Your task to perform on an android device: delete browsing data in the chrome app Image 0: 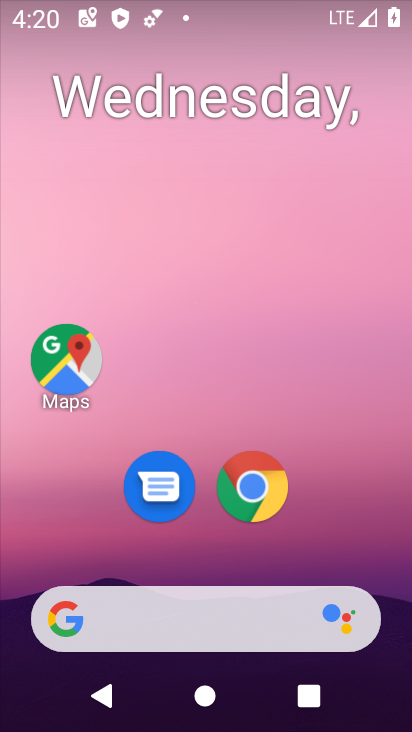
Step 0: drag from (206, 595) to (276, 294)
Your task to perform on an android device: delete browsing data in the chrome app Image 1: 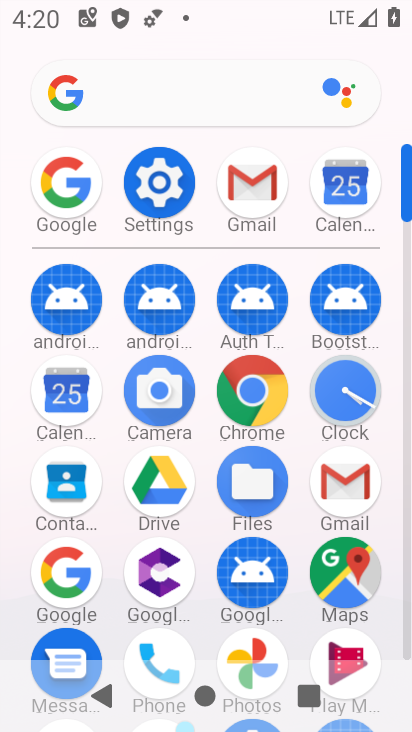
Step 1: click (239, 395)
Your task to perform on an android device: delete browsing data in the chrome app Image 2: 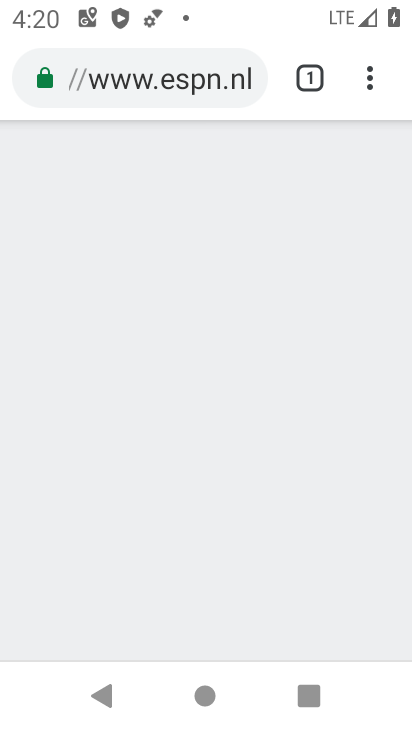
Step 2: click (307, 79)
Your task to perform on an android device: delete browsing data in the chrome app Image 3: 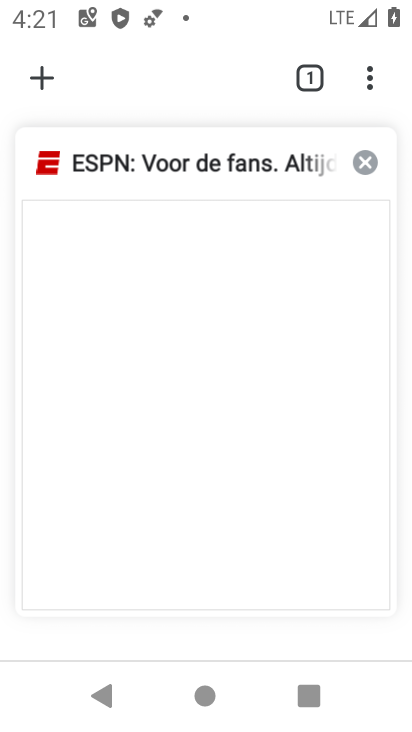
Step 3: click (358, 161)
Your task to perform on an android device: delete browsing data in the chrome app Image 4: 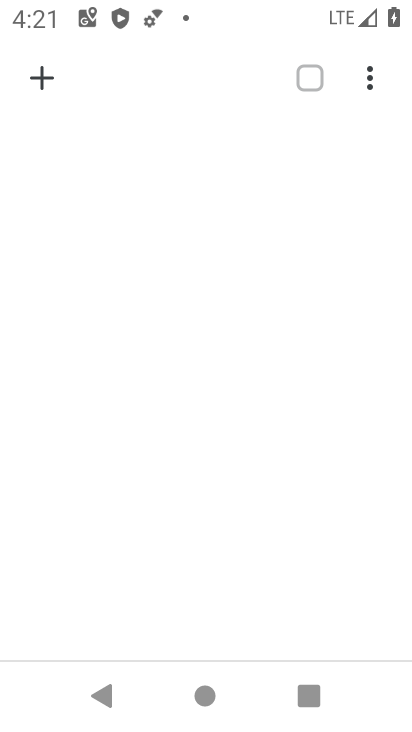
Step 4: click (33, 70)
Your task to perform on an android device: delete browsing data in the chrome app Image 5: 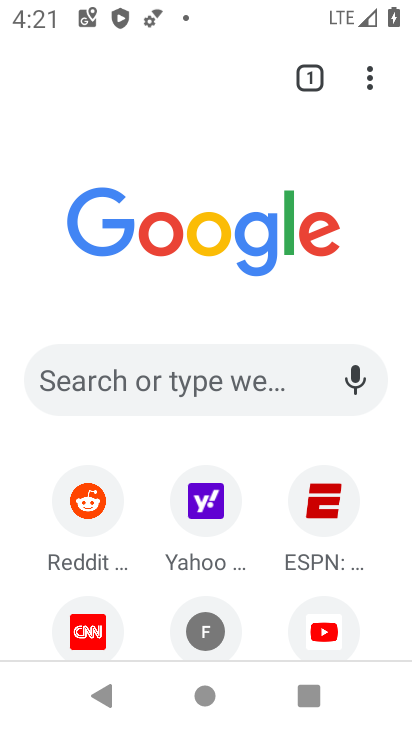
Step 5: drag from (153, 587) to (165, 287)
Your task to perform on an android device: delete browsing data in the chrome app Image 6: 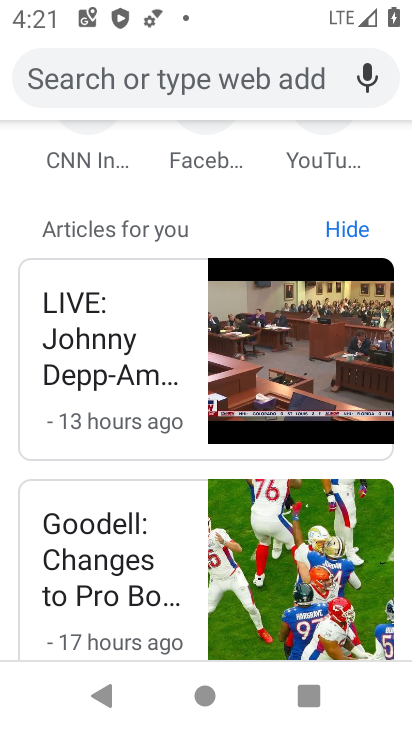
Step 6: drag from (240, 144) to (170, 557)
Your task to perform on an android device: delete browsing data in the chrome app Image 7: 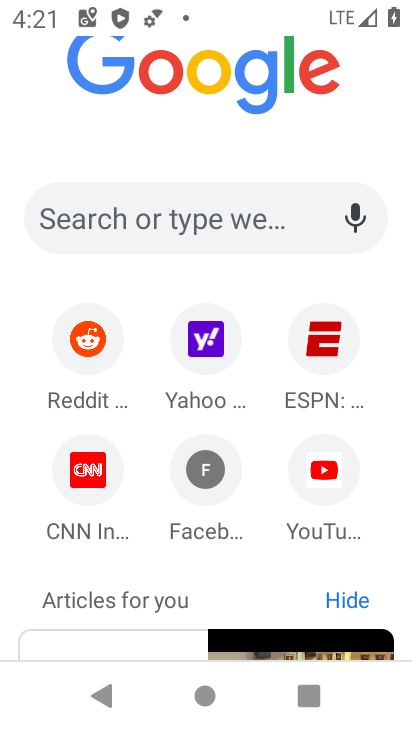
Step 7: drag from (342, 134) to (300, 453)
Your task to perform on an android device: delete browsing data in the chrome app Image 8: 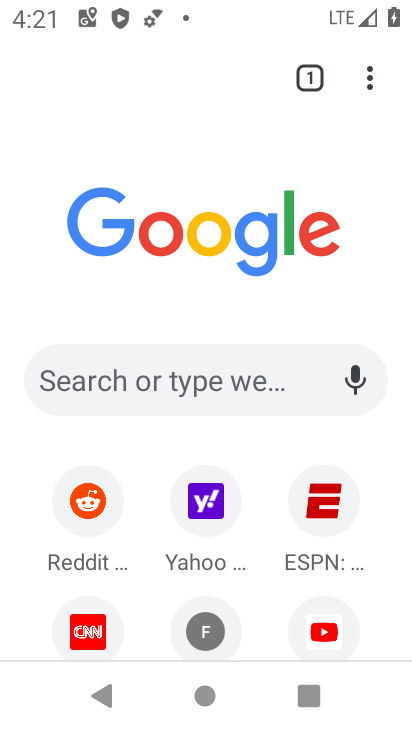
Step 8: click (366, 76)
Your task to perform on an android device: delete browsing data in the chrome app Image 9: 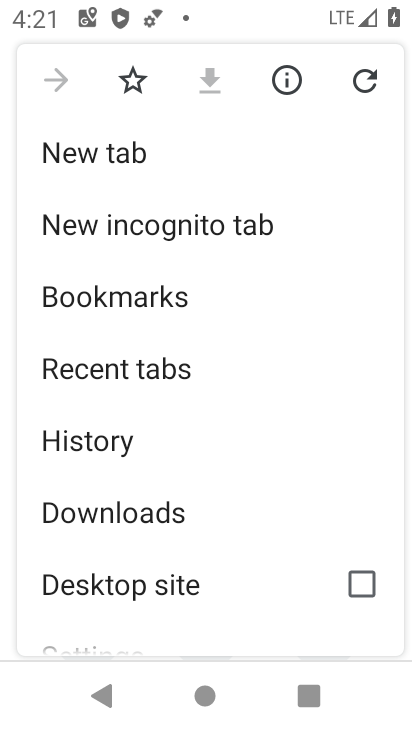
Step 9: drag from (141, 583) to (183, 200)
Your task to perform on an android device: delete browsing data in the chrome app Image 10: 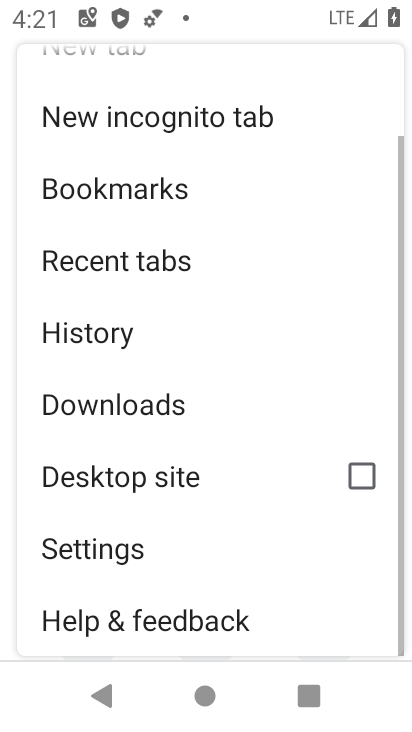
Step 10: click (135, 551)
Your task to perform on an android device: delete browsing data in the chrome app Image 11: 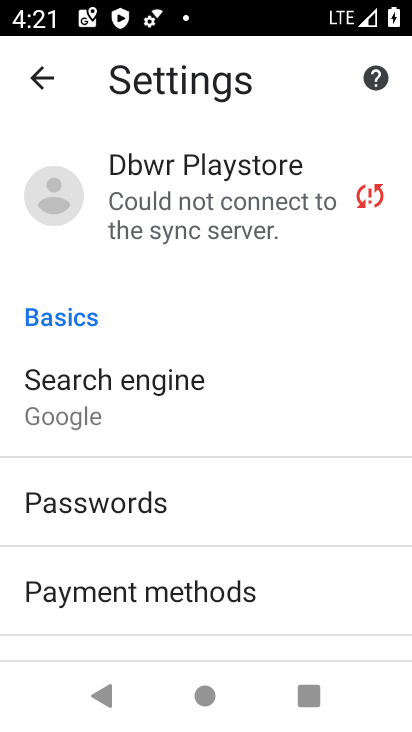
Step 11: drag from (133, 609) to (149, 357)
Your task to perform on an android device: delete browsing data in the chrome app Image 12: 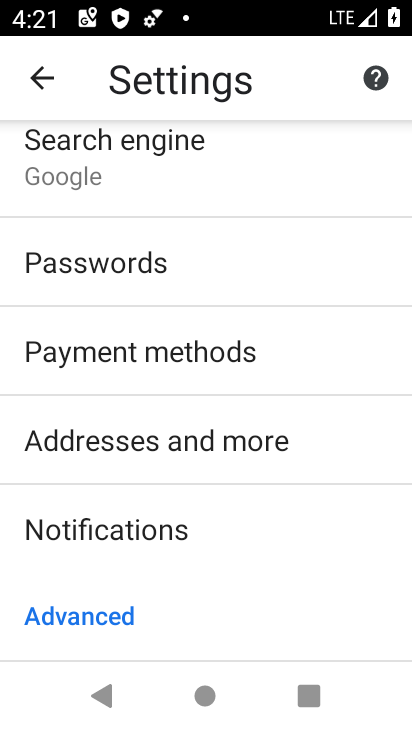
Step 12: drag from (119, 633) to (104, 400)
Your task to perform on an android device: delete browsing data in the chrome app Image 13: 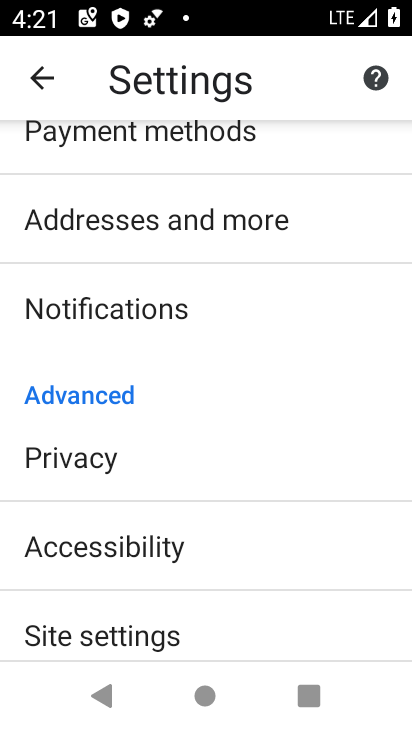
Step 13: click (86, 460)
Your task to perform on an android device: delete browsing data in the chrome app Image 14: 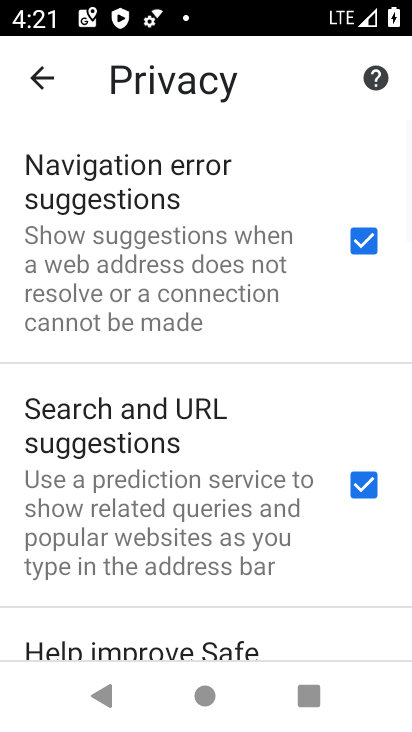
Step 14: drag from (180, 626) to (213, 280)
Your task to perform on an android device: delete browsing data in the chrome app Image 15: 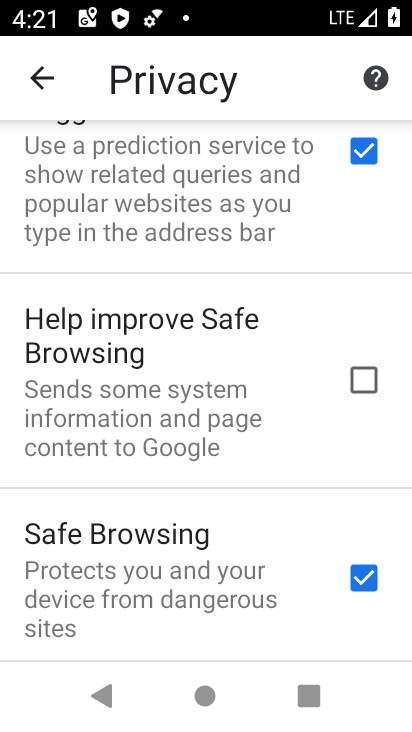
Step 15: drag from (244, 601) to (240, 337)
Your task to perform on an android device: delete browsing data in the chrome app Image 16: 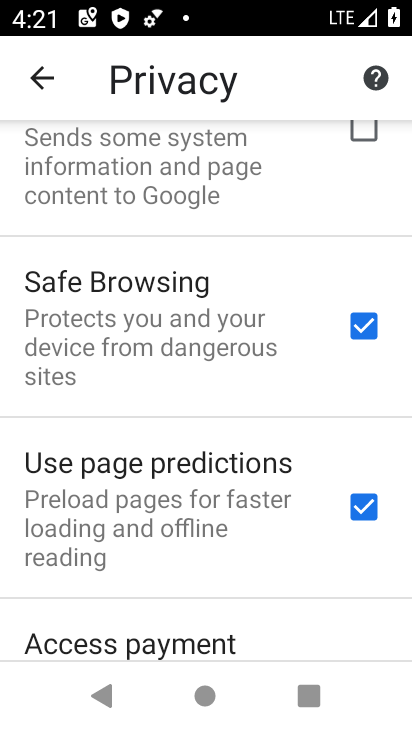
Step 16: drag from (249, 634) to (276, 308)
Your task to perform on an android device: delete browsing data in the chrome app Image 17: 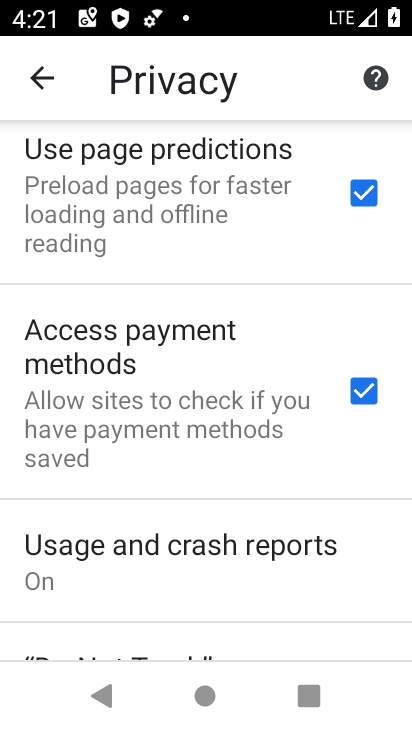
Step 17: drag from (197, 624) to (199, 350)
Your task to perform on an android device: delete browsing data in the chrome app Image 18: 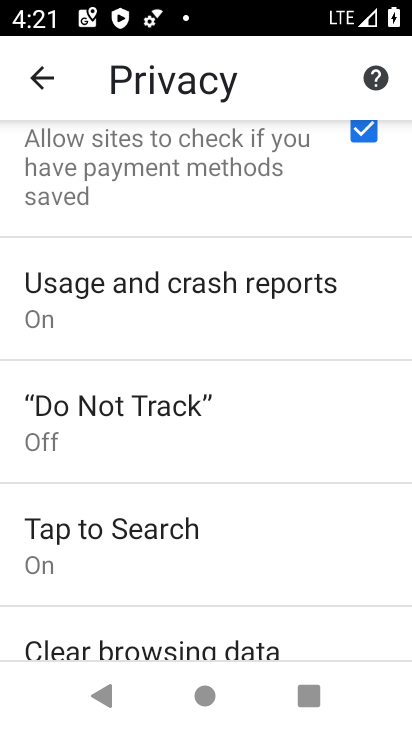
Step 18: drag from (159, 628) to (192, 379)
Your task to perform on an android device: delete browsing data in the chrome app Image 19: 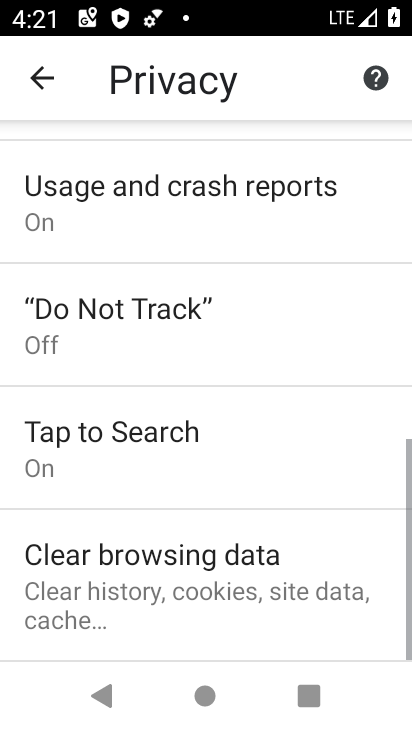
Step 19: click (174, 567)
Your task to perform on an android device: delete browsing data in the chrome app Image 20: 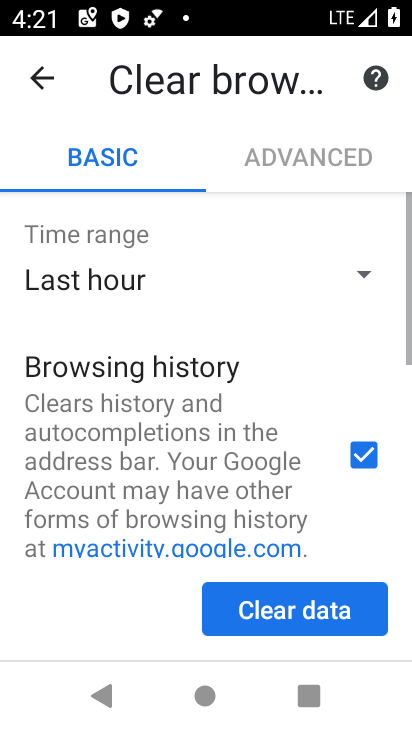
Step 20: drag from (356, 534) to (352, 208)
Your task to perform on an android device: delete browsing data in the chrome app Image 21: 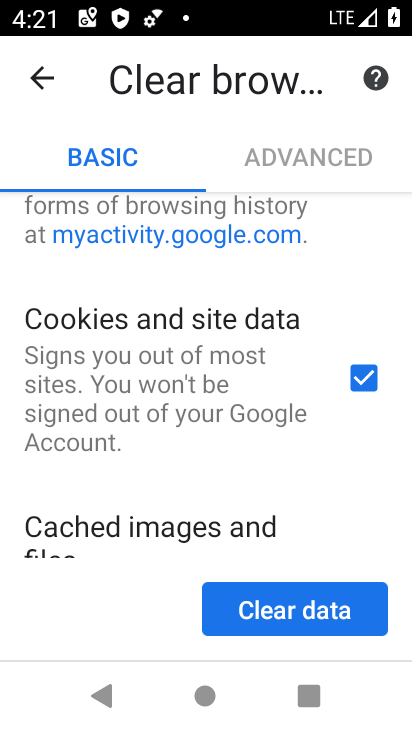
Step 21: drag from (292, 489) to (311, 266)
Your task to perform on an android device: delete browsing data in the chrome app Image 22: 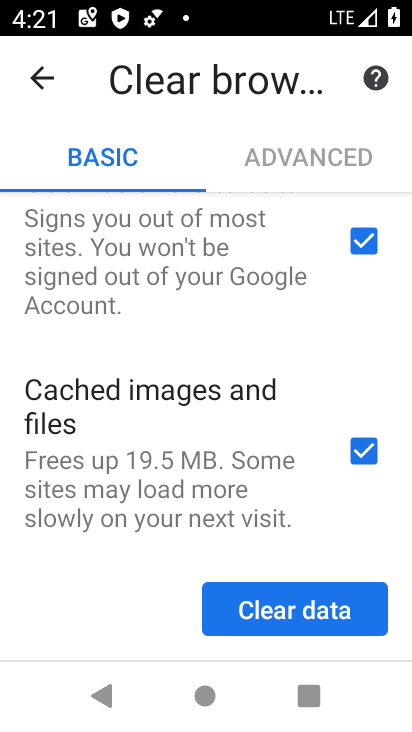
Step 22: click (288, 626)
Your task to perform on an android device: delete browsing data in the chrome app Image 23: 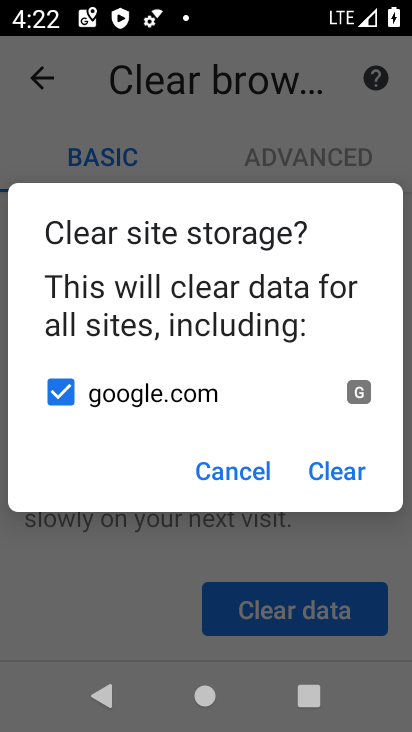
Step 23: click (347, 472)
Your task to perform on an android device: delete browsing data in the chrome app Image 24: 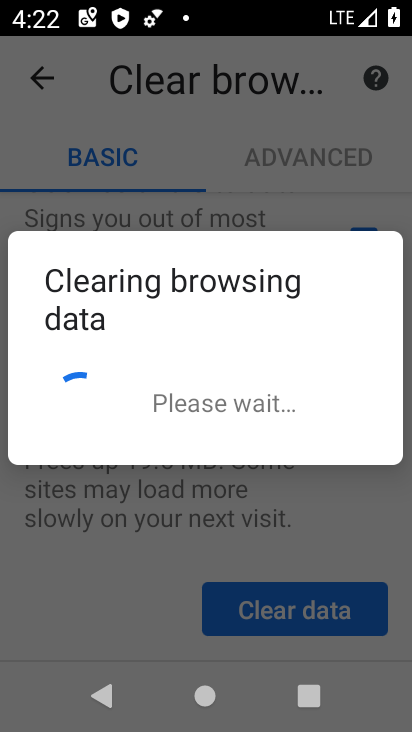
Step 24: task complete